Your task to perform on an android device: Open Chrome and go to settings Image 0: 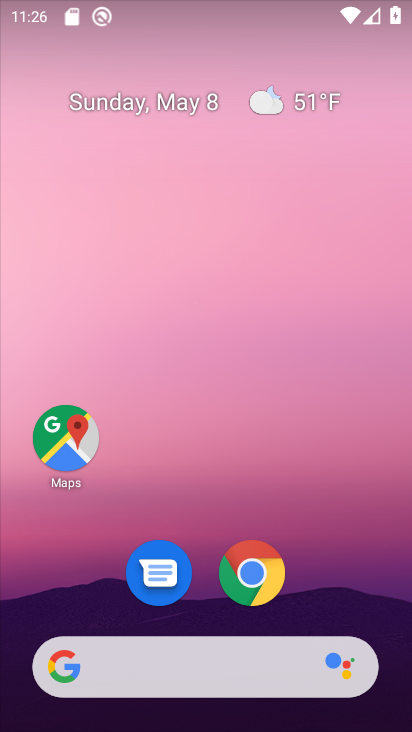
Step 0: click (252, 562)
Your task to perform on an android device: Open Chrome and go to settings Image 1: 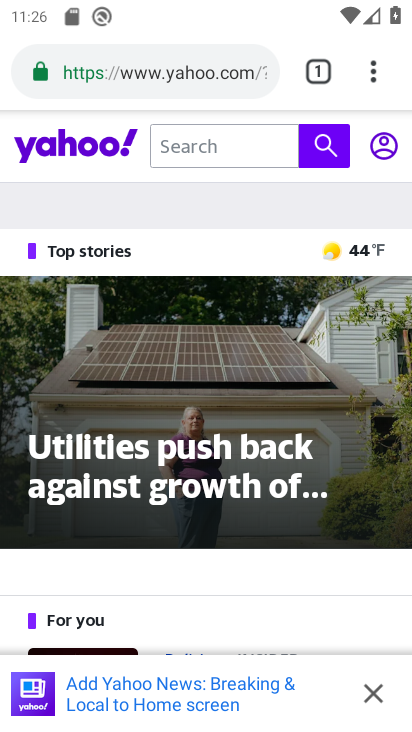
Step 1: click (373, 64)
Your task to perform on an android device: Open Chrome and go to settings Image 2: 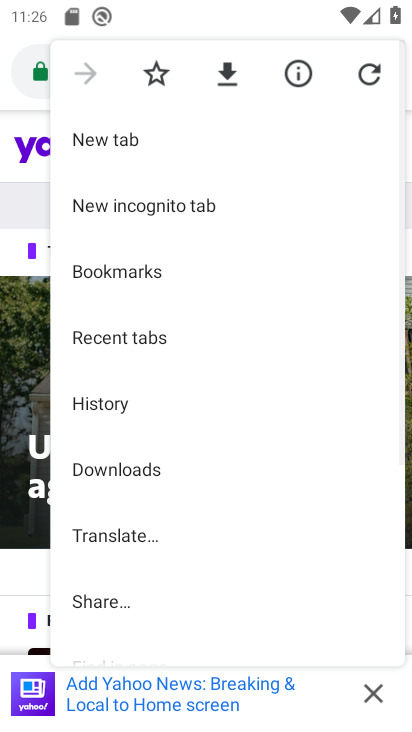
Step 2: drag from (162, 633) to (158, 289)
Your task to perform on an android device: Open Chrome and go to settings Image 3: 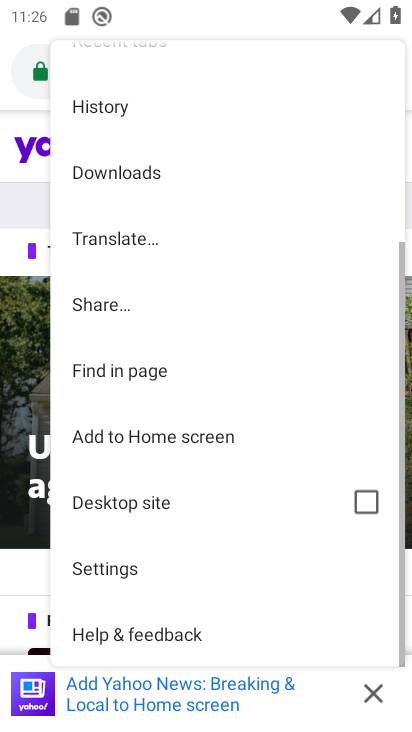
Step 3: click (110, 572)
Your task to perform on an android device: Open Chrome and go to settings Image 4: 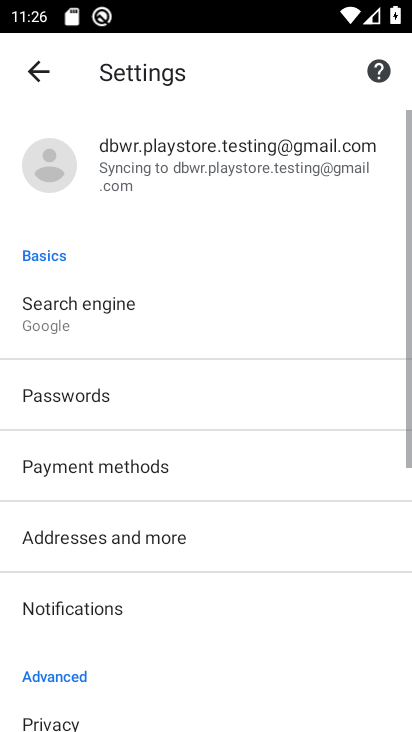
Step 4: drag from (108, 670) to (118, 319)
Your task to perform on an android device: Open Chrome and go to settings Image 5: 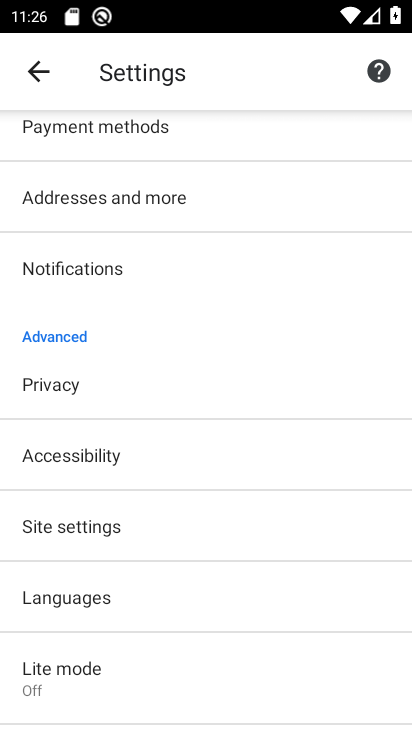
Step 5: click (62, 524)
Your task to perform on an android device: Open Chrome and go to settings Image 6: 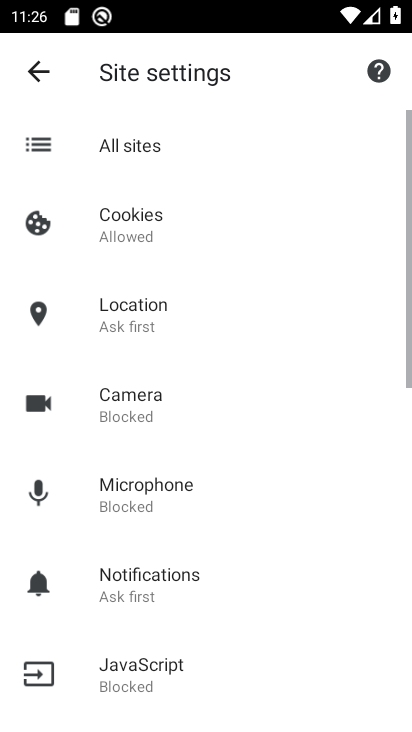
Step 6: task complete